Your task to perform on an android device: Open the web browser Image 0: 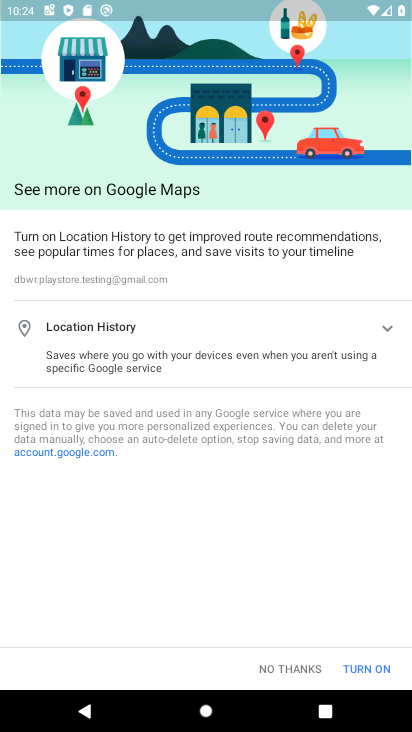
Step 0: press home button
Your task to perform on an android device: Open the web browser Image 1: 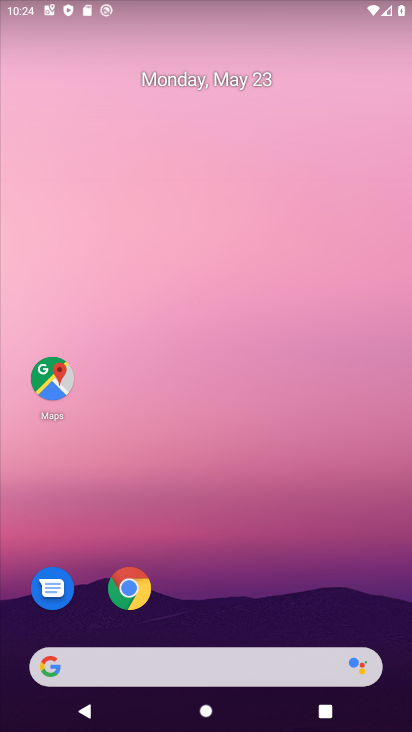
Step 1: click (129, 584)
Your task to perform on an android device: Open the web browser Image 2: 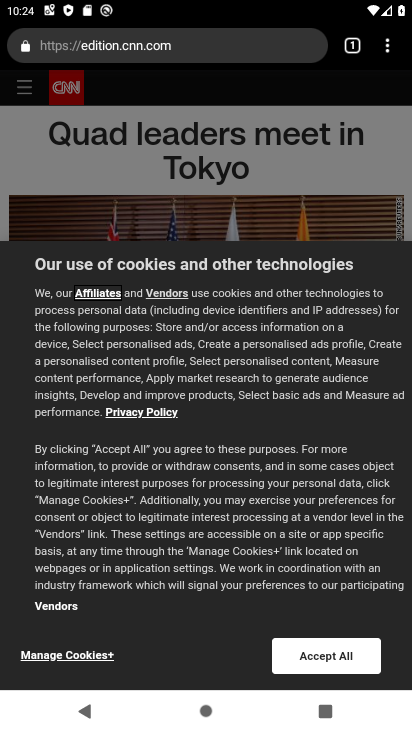
Step 2: task complete